Your task to perform on an android device: turn off wifi Image 0: 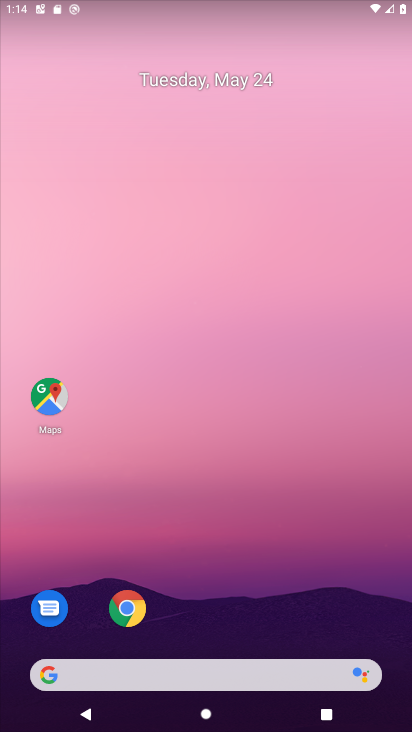
Step 0: drag from (241, 622) to (241, 48)
Your task to perform on an android device: turn off wifi Image 1: 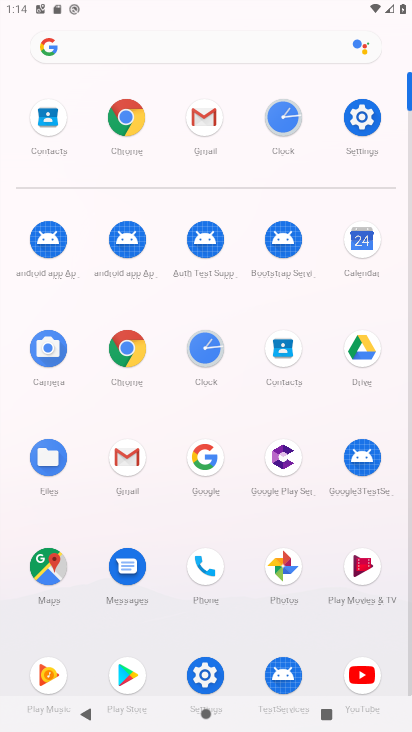
Step 1: click (366, 141)
Your task to perform on an android device: turn off wifi Image 2: 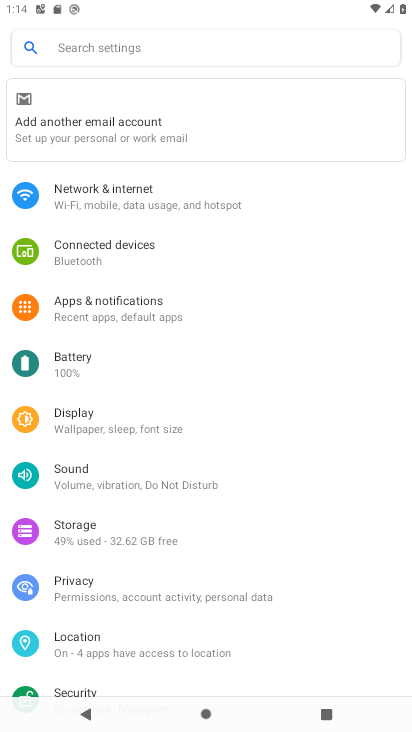
Step 2: click (237, 193)
Your task to perform on an android device: turn off wifi Image 3: 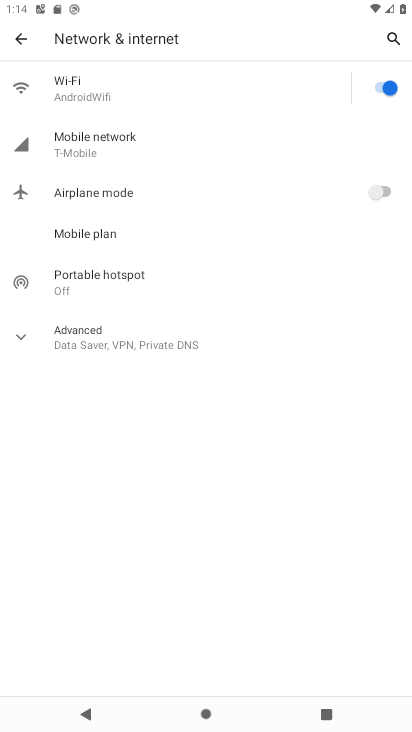
Step 3: click (384, 104)
Your task to perform on an android device: turn off wifi Image 4: 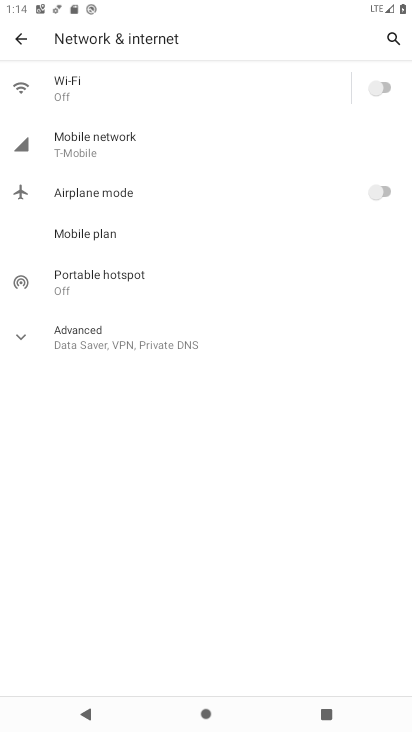
Step 4: task complete